Your task to perform on an android device: open app "Airtel Thanks" Image 0: 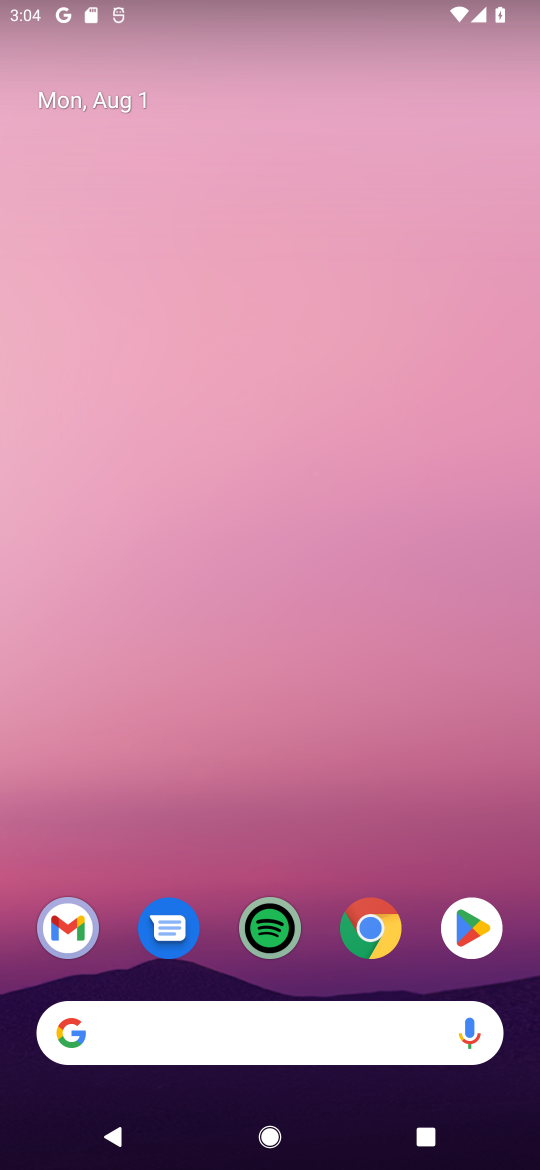
Step 0: click (465, 915)
Your task to perform on an android device: open app "Airtel Thanks" Image 1: 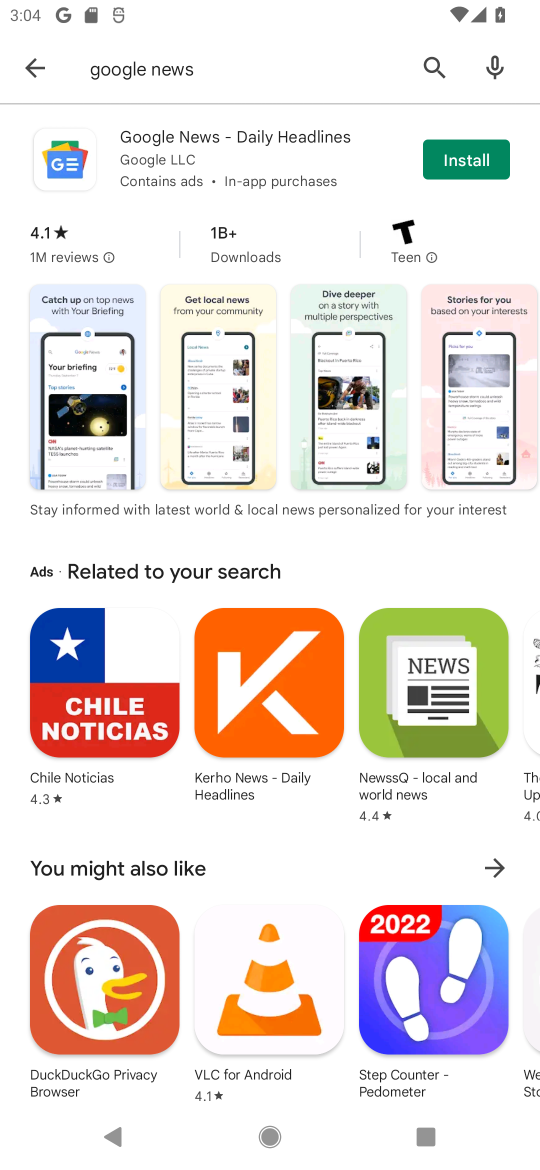
Step 1: click (423, 73)
Your task to perform on an android device: open app "Airtel Thanks" Image 2: 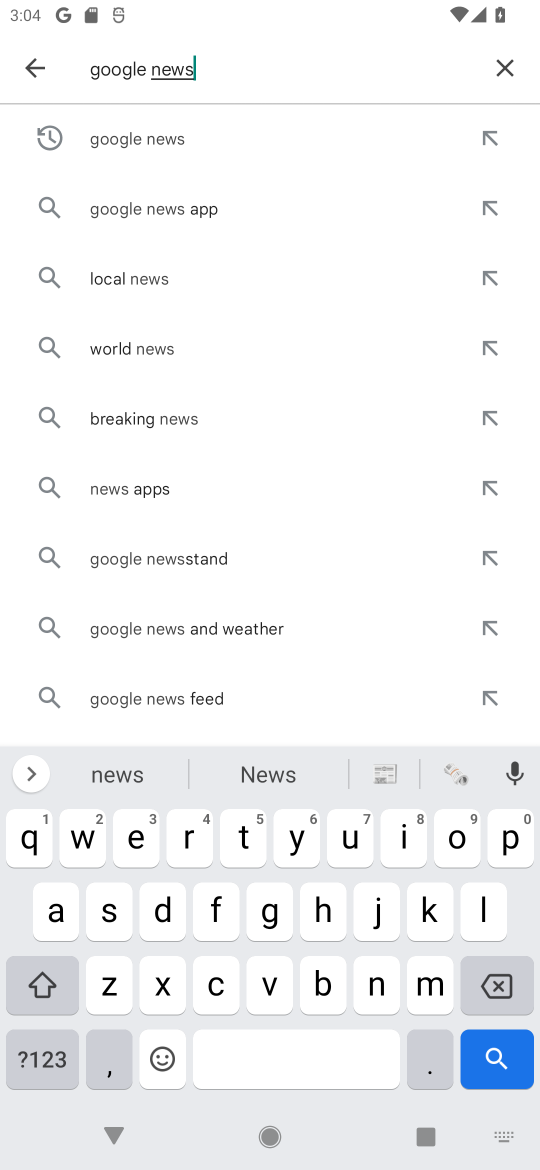
Step 2: click (513, 54)
Your task to perform on an android device: open app "Airtel Thanks" Image 3: 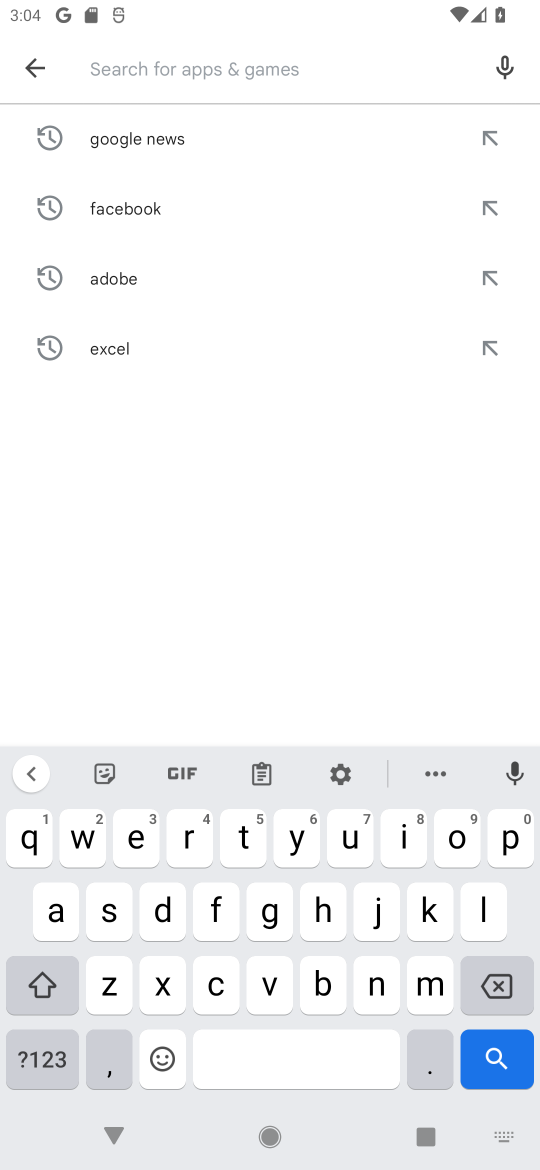
Step 3: type "aitel thanks"
Your task to perform on an android device: open app "Airtel Thanks" Image 4: 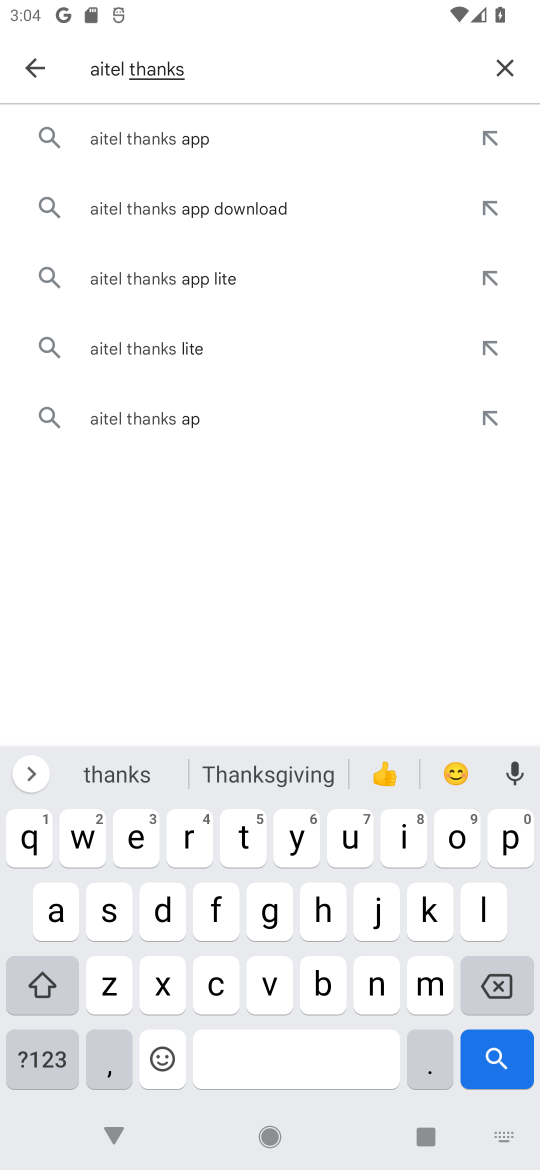
Step 4: click (189, 144)
Your task to perform on an android device: open app "Airtel Thanks" Image 5: 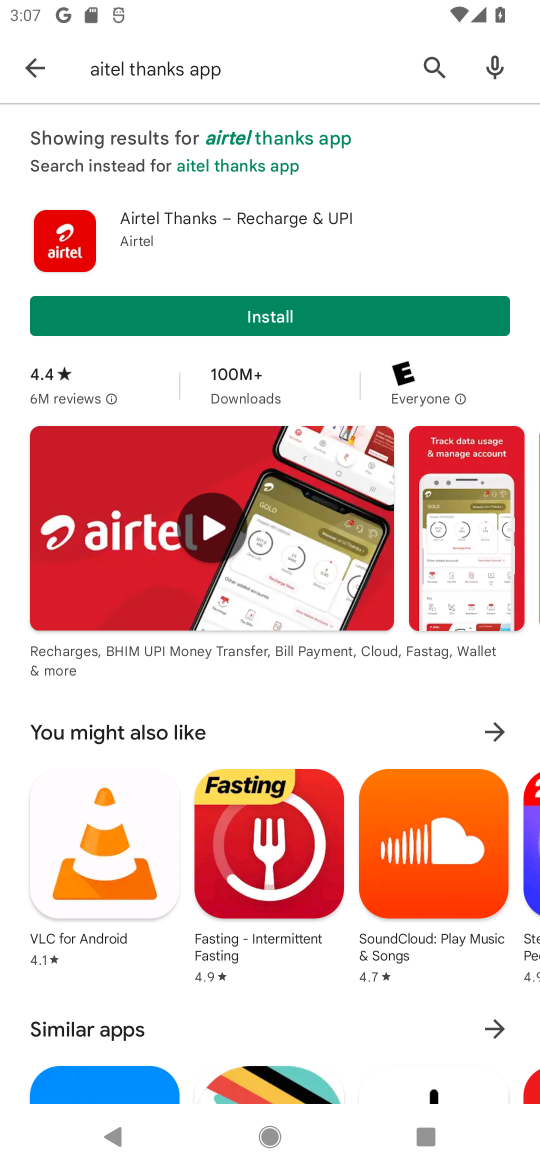
Step 5: task complete